Your task to perform on an android device: Open wifi settings Image 0: 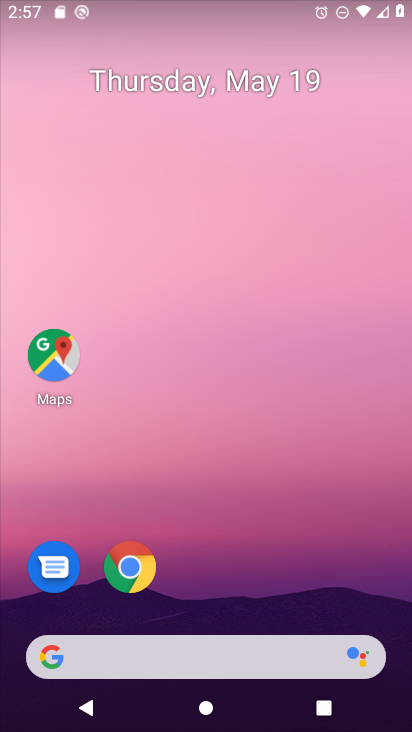
Step 0: drag from (275, 553) to (222, 50)
Your task to perform on an android device: Open wifi settings Image 1: 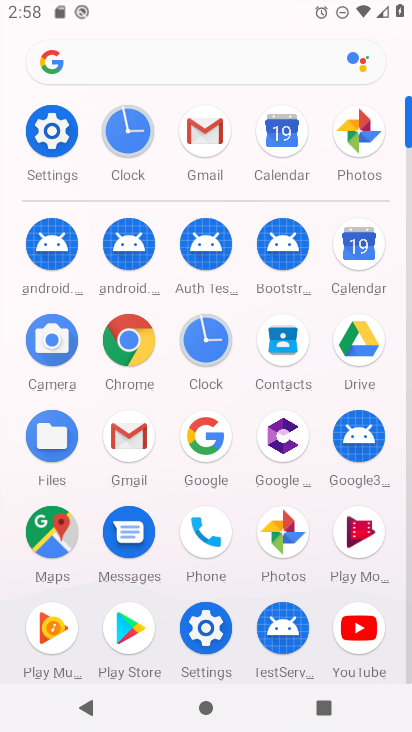
Step 1: click (46, 119)
Your task to perform on an android device: Open wifi settings Image 2: 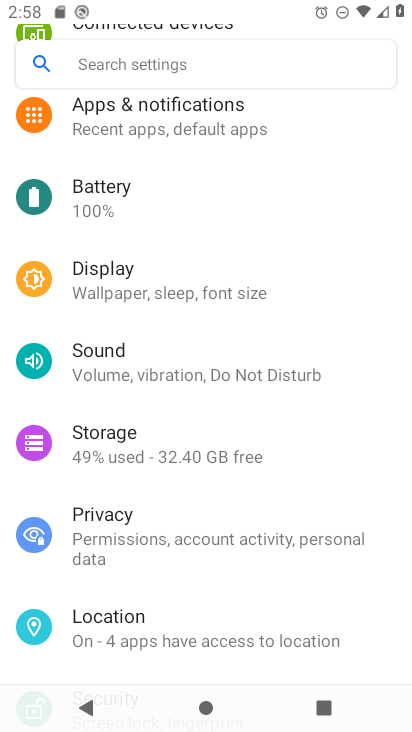
Step 2: drag from (234, 203) to (249, 577)
Your task to perform on an android device: Open wifi settings Image 3: 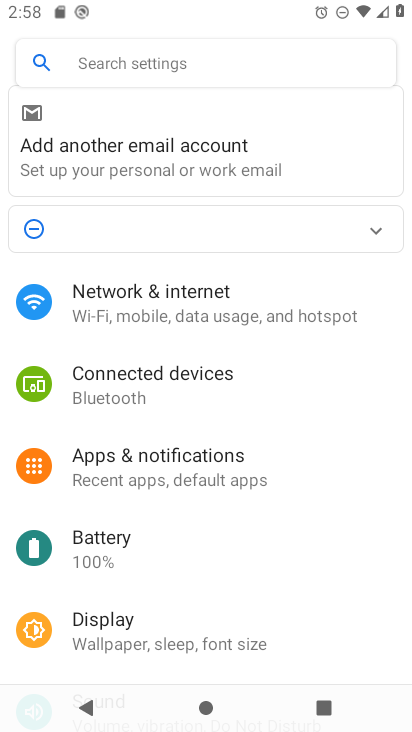
Step 3: click (243, 309)
Your task to perform on an android device: Open wifi settings Image 4: 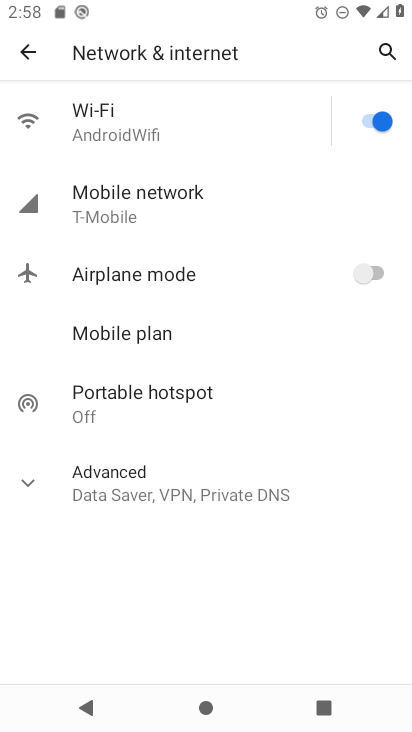
Step 4: click (147, 119)
Your task to perform on an android device: Open wifi settings Image 5: 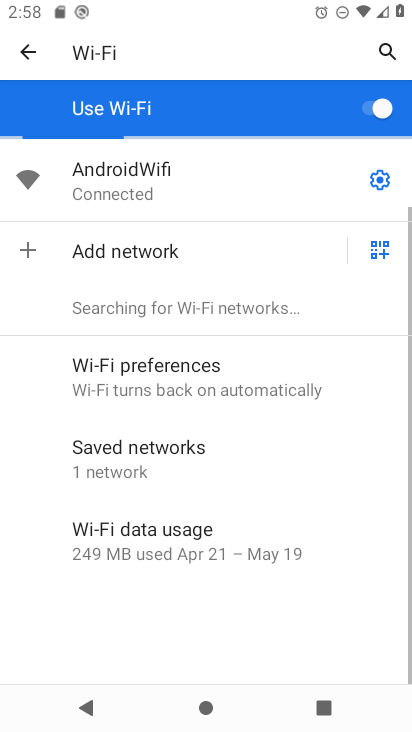
Step 5: task complete